Your task to perform on an android device: Open wifi settings Image 0: 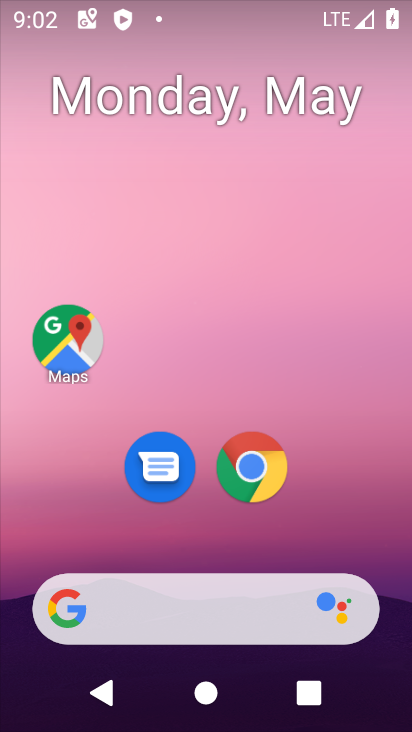
Step 0: drag from (317, 468) to (270, 42)
Your task to perform on an android device: Open wifi settings Image 1: 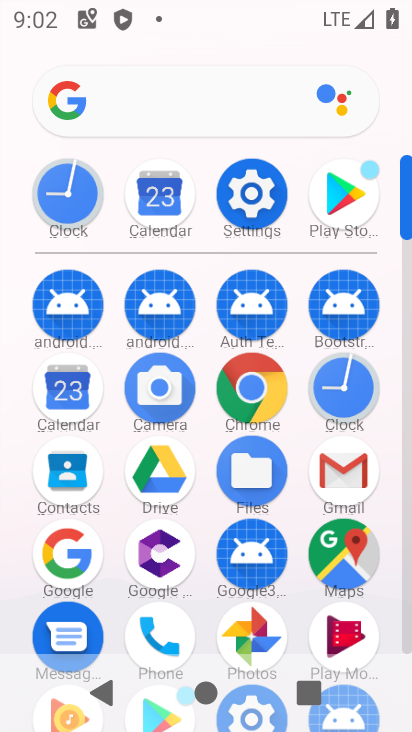
Step 1: click (248, 190)
Your task to perform on an android device: Open wifi settings Image 2: 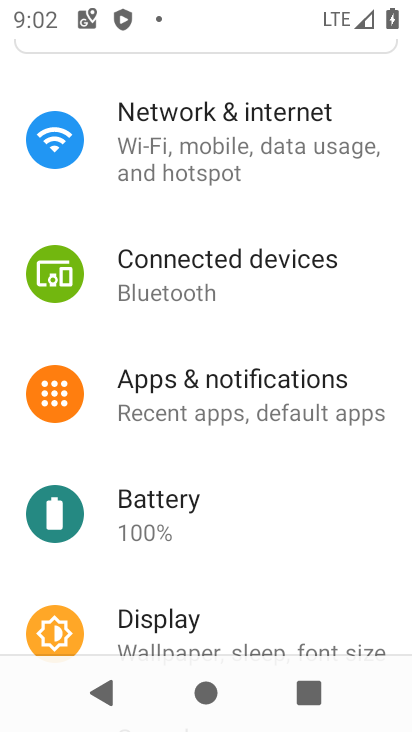
Step 2: click (228, 156)
Your task to perform on an android device: Open wifi settings Image 3: 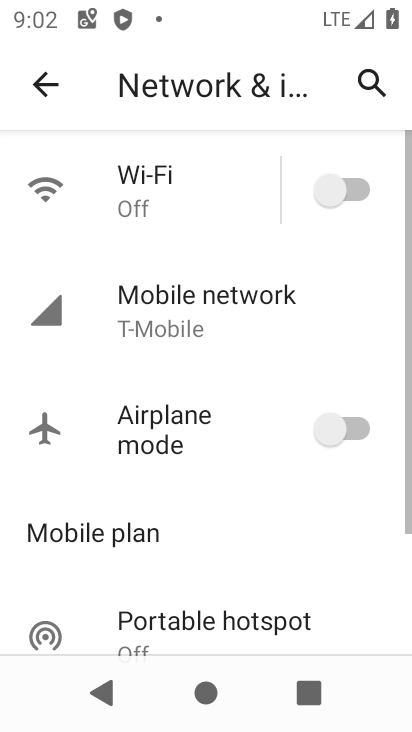
Step 3: click (180, 190)
Your task to perform on an android device: Open wifi settings Image 4: 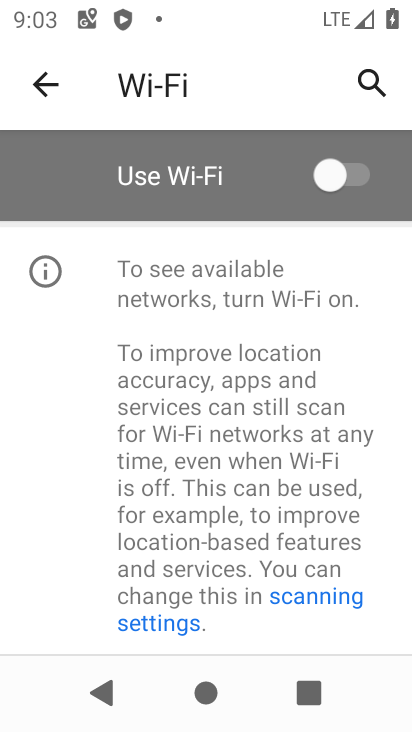
Step 4: task complete